Your task to perform on an android device: turn smart compose on in the gmail app Image 0: 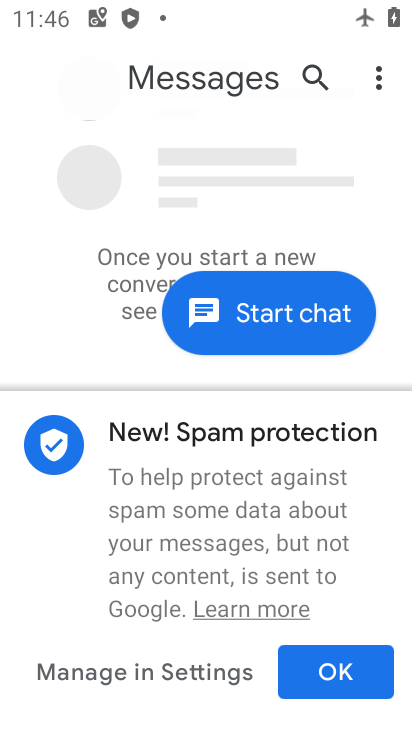
Step 0: drag from (330, 585) to (239, 61)
Your task to perform on an android device: turn smart compose on in the gmail app Image 1: 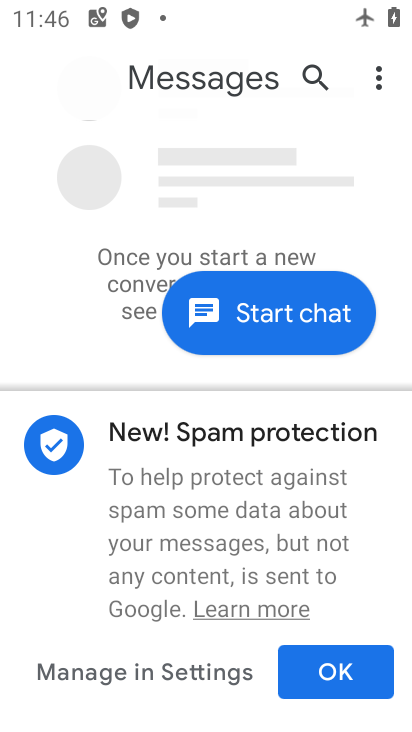
Step 1: press home button
Your task to perform on an android device: turn smart compose on in the gmail app Image 2: 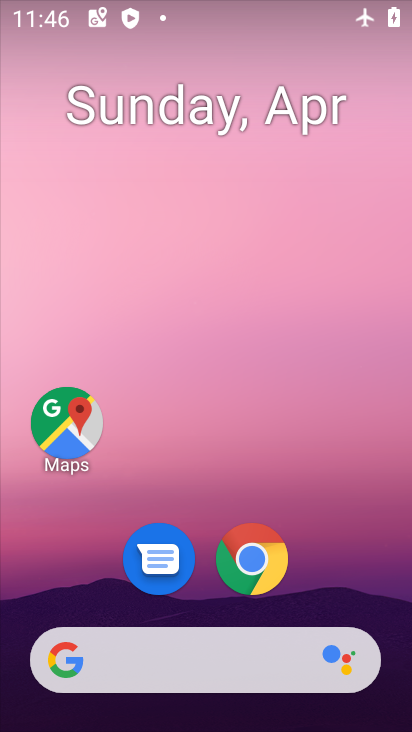
Step 2: drag from (319, 584) to (299, 74)
Your task to perform on an android device: turn smart compose on in the gmail app Image 3: 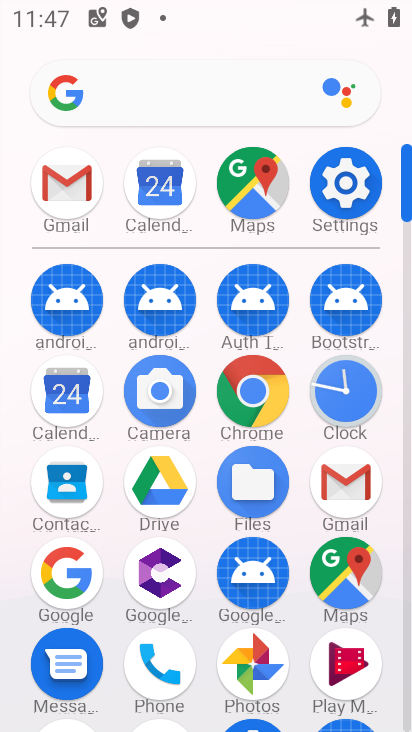
Step 3: click (352, 483)
Your task to perform on an android device: turn smart compose on in the gmail app Image 4: 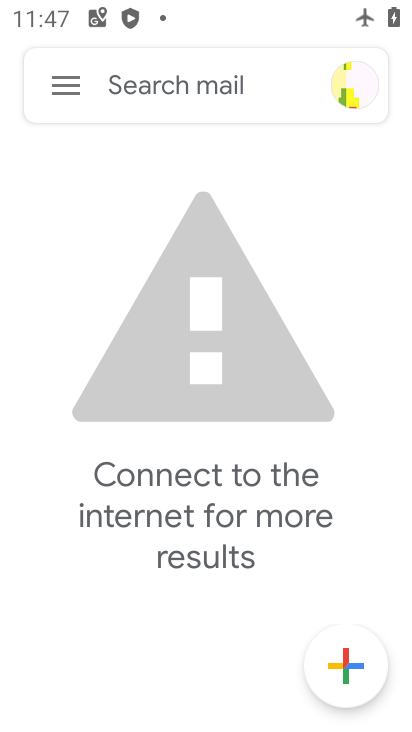
Step 4: click (71, 85)
Your task to perform on an android device: turn smart compose on in the gmail app Image 5: 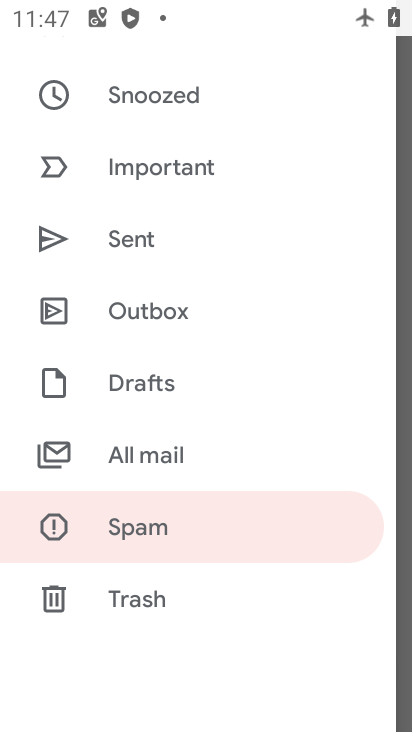
Step 5: click (155, 281)
Your task to perform on an android device: turn smart compose on in the gmail app Image 6: 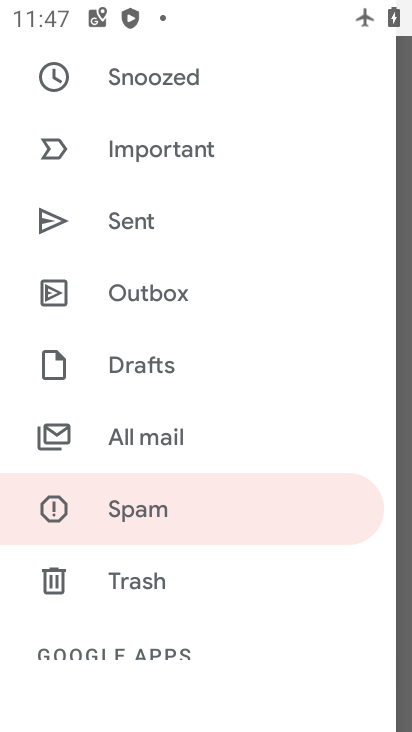
Step 6: drag from (179, 546) to (171, 205)
Your task to perform on an android device: turn smart compose on in the gmail app Image 7: 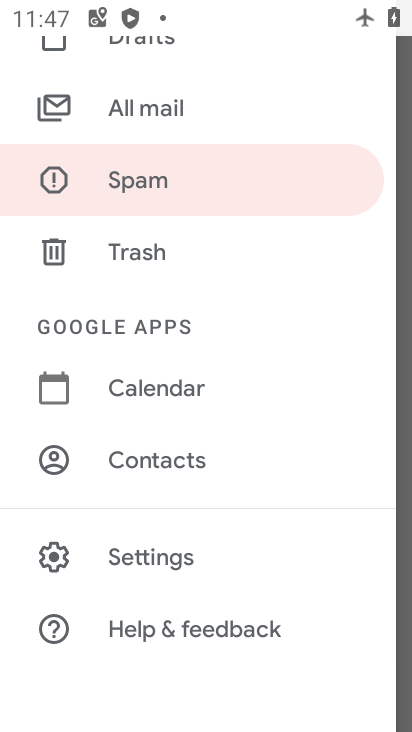
Step 7: click (178, 545)
Your task to perform on an android device: turn smart compose on in the gmail app Image 8: 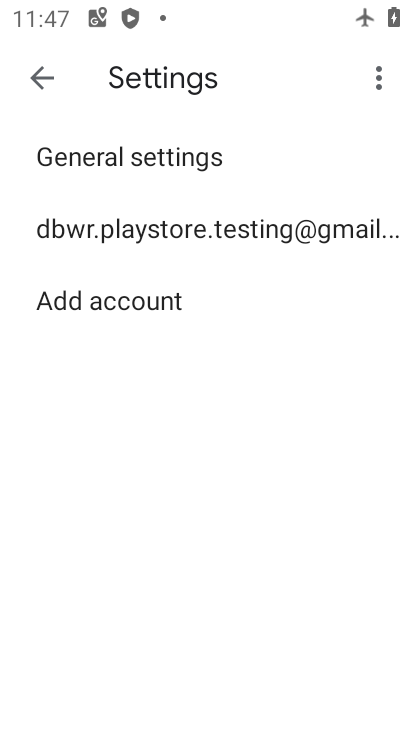
Step 8: click (259, 243)
Your task to perform on an android device: turn smart compose on in the gmail app Image 9: 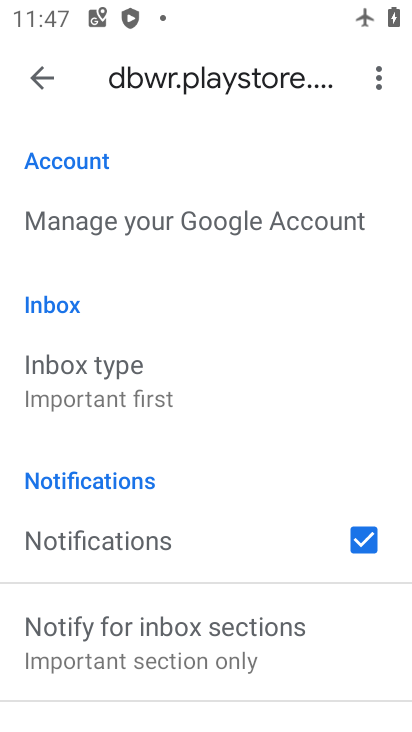
Step 9: task complete